Your task to perform on an android device: Check the news Image 0: 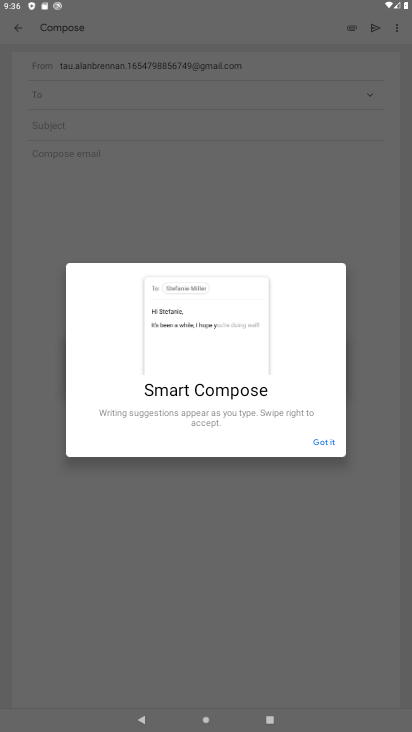
Step 0: press home button
Your task to perform on an android device: Check the news Image 1: 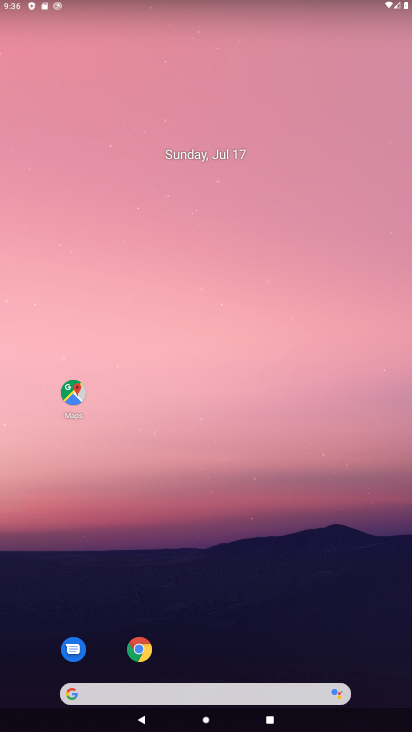
Step 1: click (103, 695)
Your task to perform on an android device: Check the news Image 2: 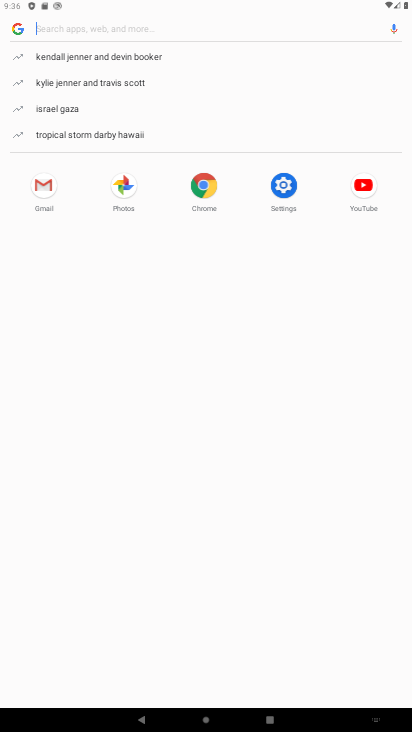
Step 2: type " news"
Your task to perform on an android device: Check the news Image 3: 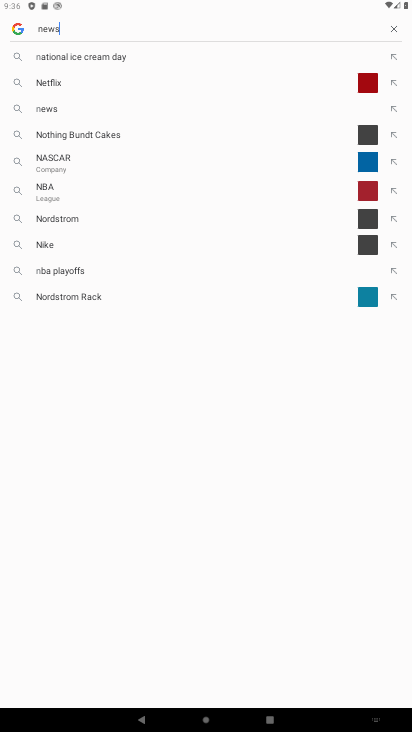
Step 3: type ""
Your task to perform on an android device: Check the news Image 4: 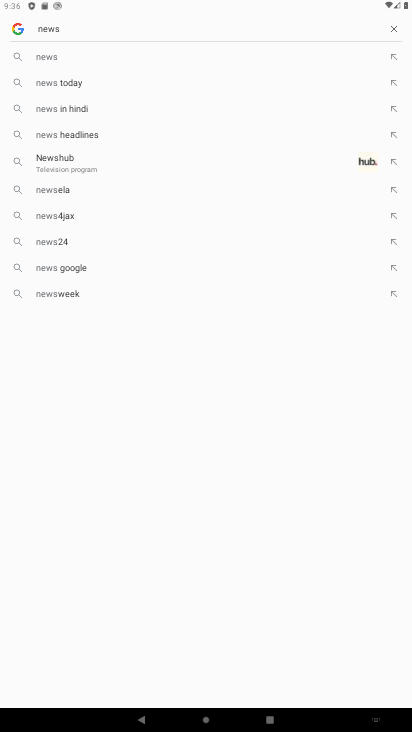
Step 4: click (55, 67)
Your task to perform on an android device: Check the news Image 5: 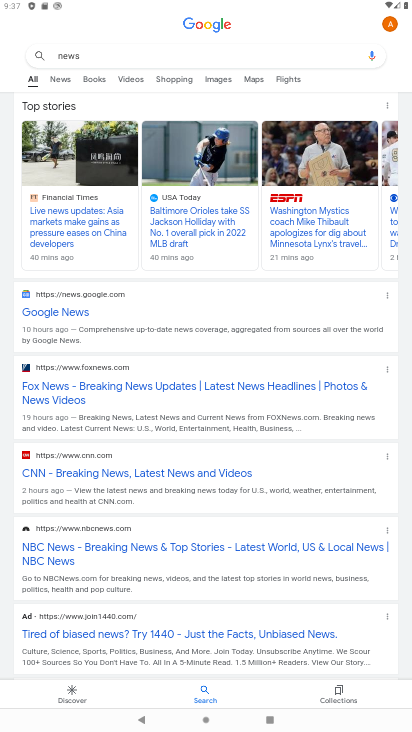
Step 5: task complete